Your task to perform on an android device: check storage Image 0: 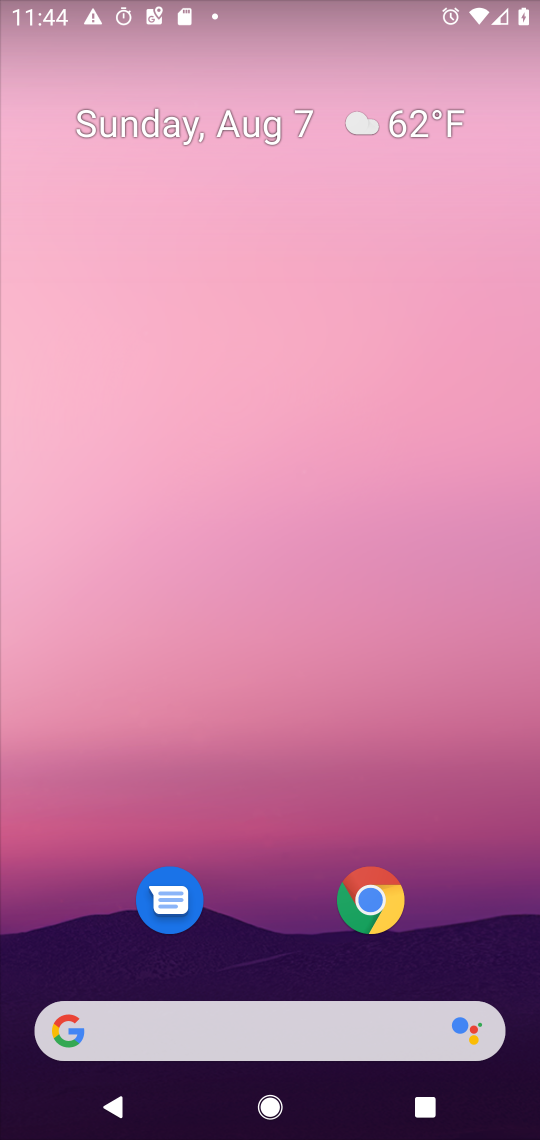
Step 0: drag from (272, 964) to (256, 167)
Your task to perform on an android device: check storage Image 1: 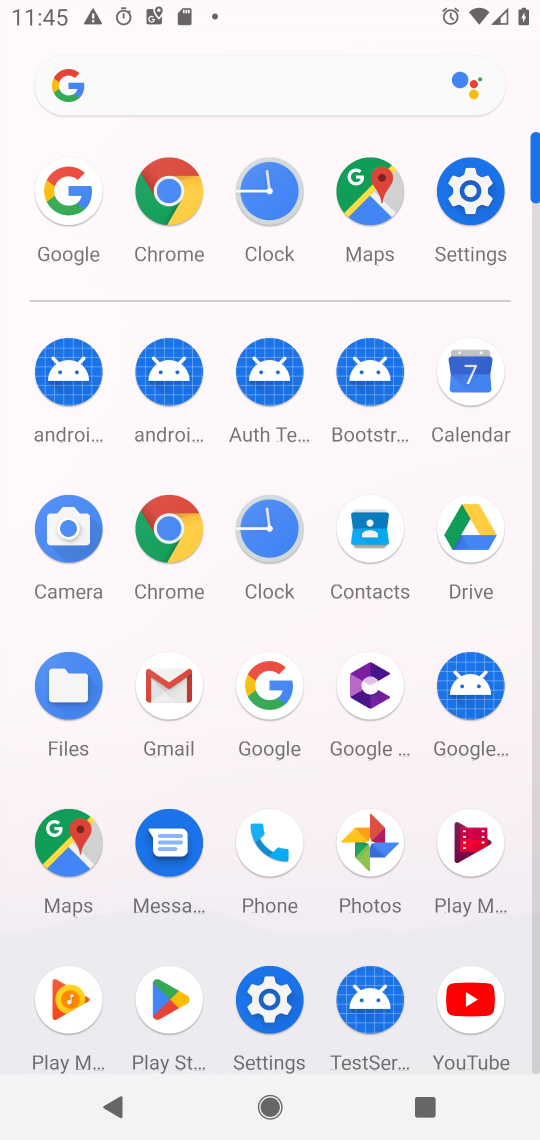
Step 1: click (466, 182)
Your task to perform on an android device: check storage Image 2: 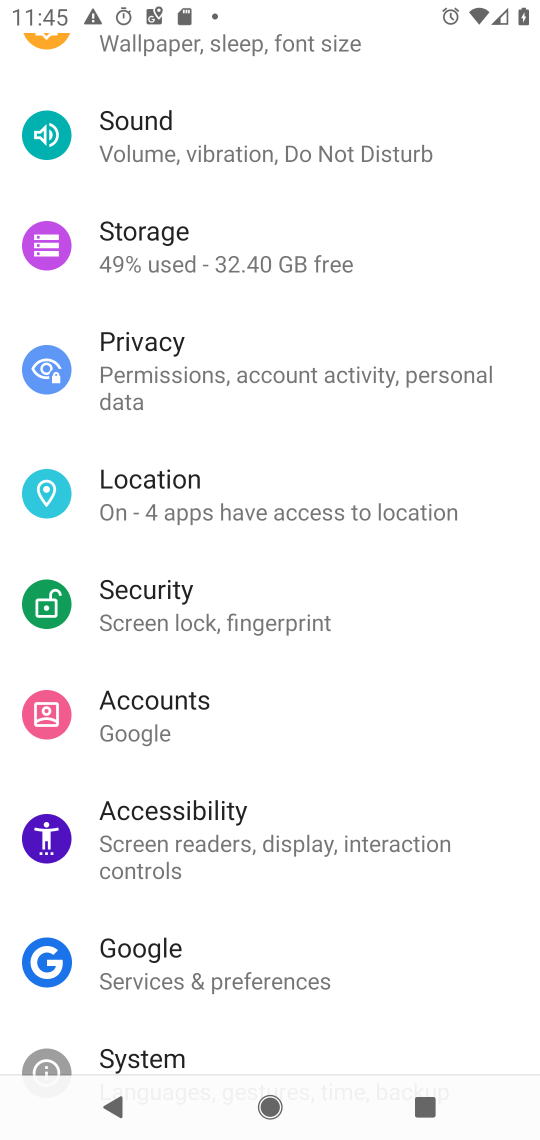
Step 2: click (212, 234)
Your task to perform on an android device: check storage Image 3: 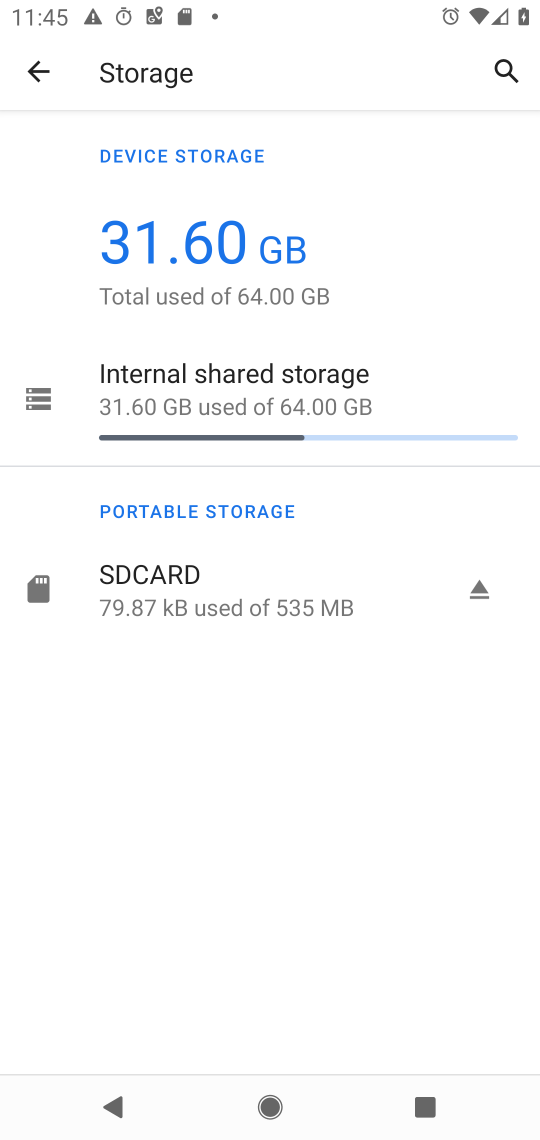
Step 3: task complete